Your task to perform on an android device: Look up the book "The Girl on the Train". Image 0: 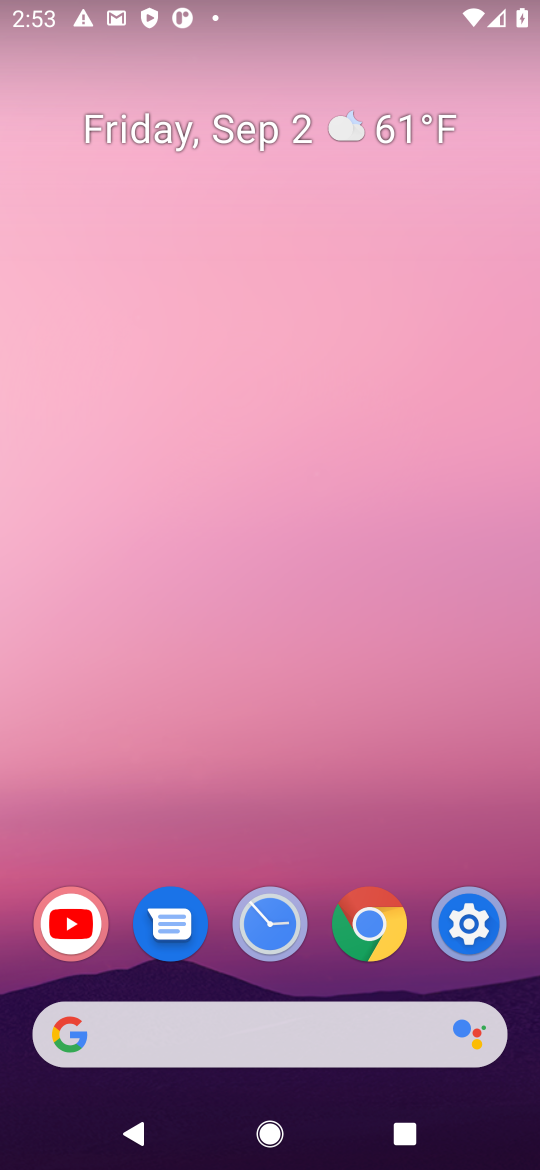
Step 0: click (362, 1040)
Your task to perform on an android device: Look up the book "The Girl on the Train". Image 1: 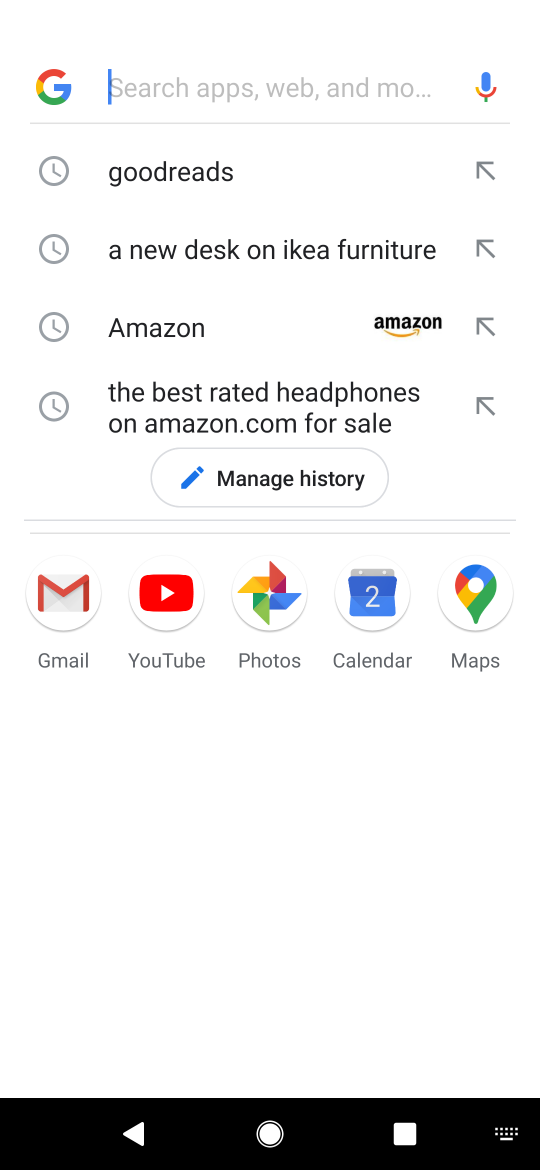
Step 1: press enter
Your task to perform on an android device: Look up the book "The Girl on the Train". Image 2: 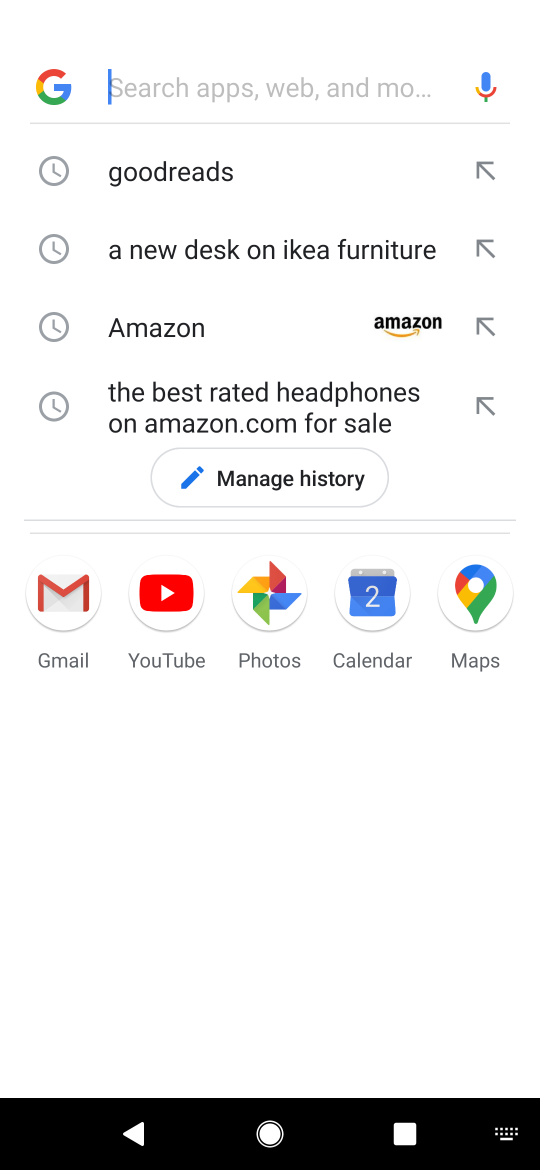
Step 2: type "The Girl on the Train"
Your task to perform on an android device: Look up the book "The Girl on the Train". Image 3: 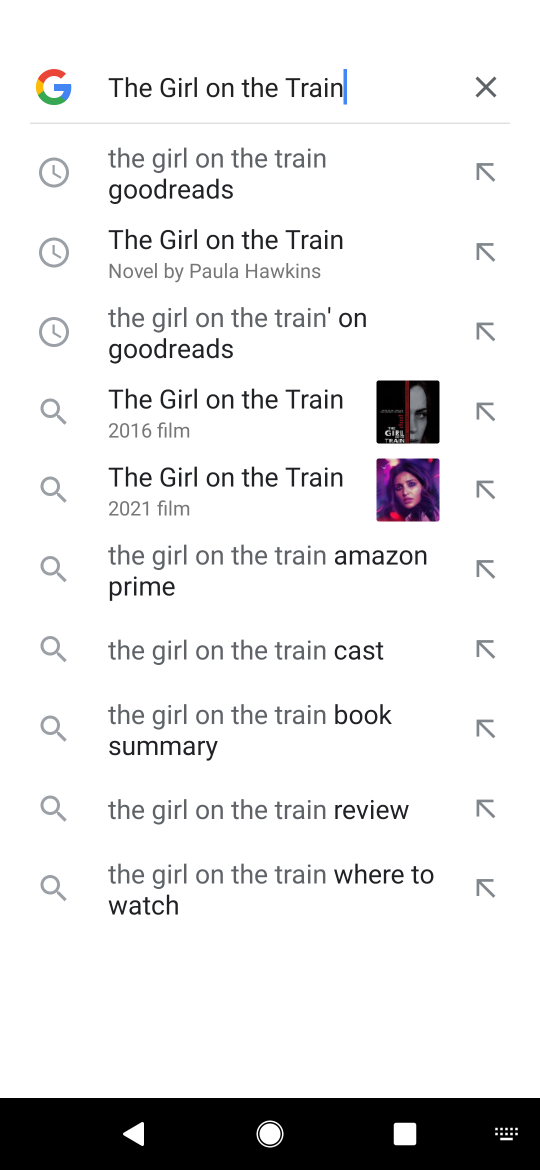
Step 3: click (212, 183)
Your task to perform on an android device: Look up the book "The Girl on the Train". Image 4: 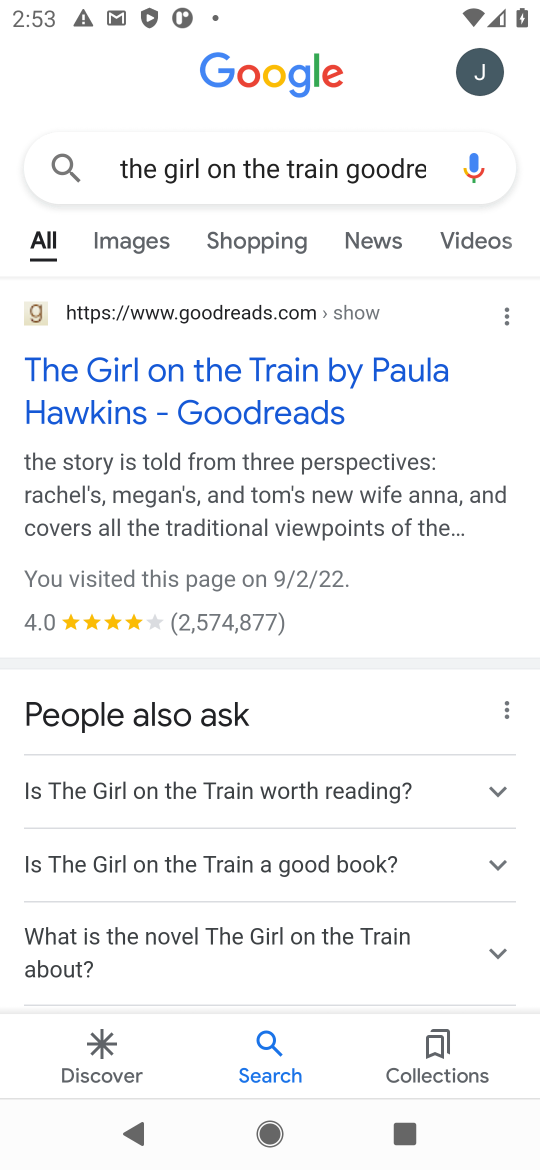
Step 4: click (183, 415)
Your task to perform on an android device: Look up the book "The Girl on the Train". Image 5: 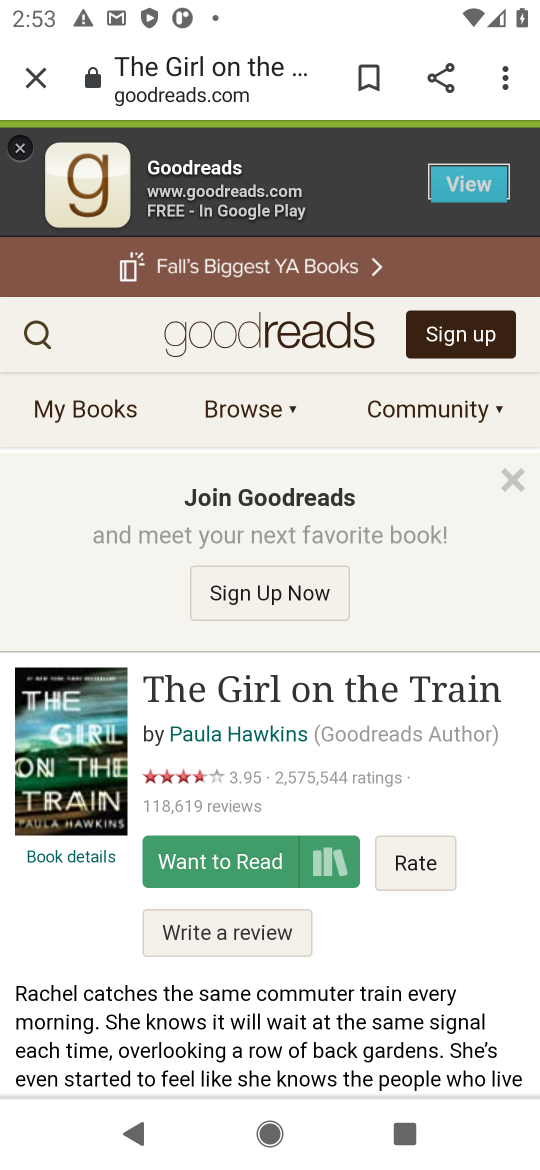
Step 5: task complete